Your task to perform on an android device: Open my contact list Image 0: 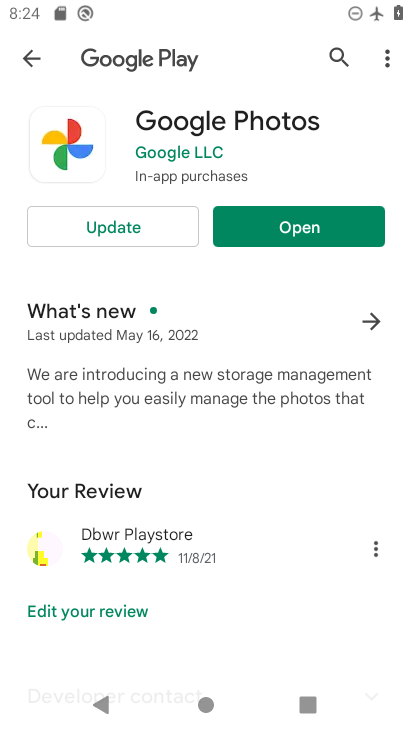
Step 0: press home button
Your task to perform on an android device: Open my contact list Image 1: 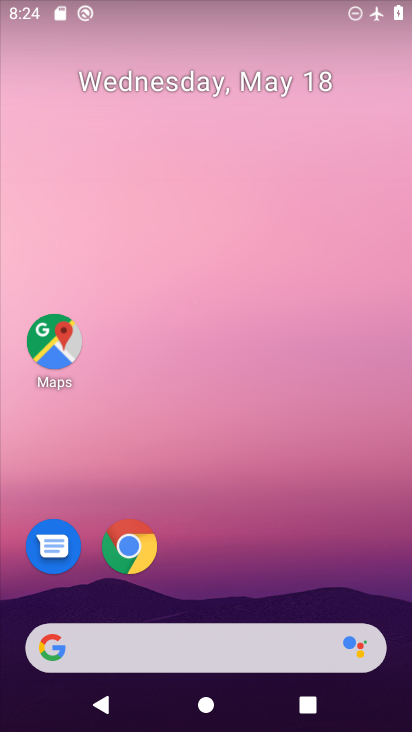
Step 1: drag from (223, 669) to (309, 312)
Your task to perform on an android device: Open my contact list Image 2: 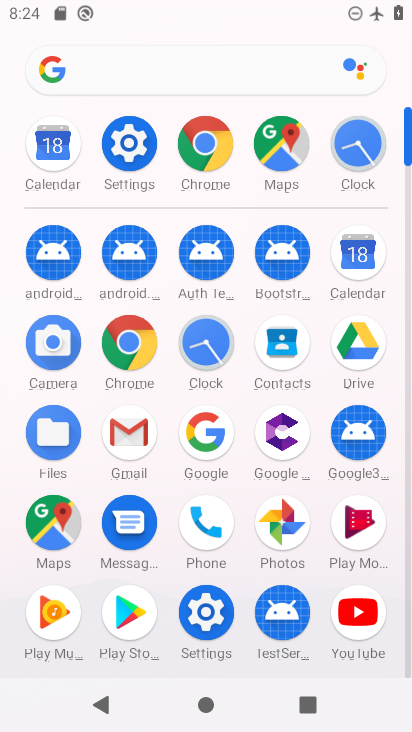
Step 2: click (240, 531)
Your task to perform on an android device: Open my contact list Image 3: 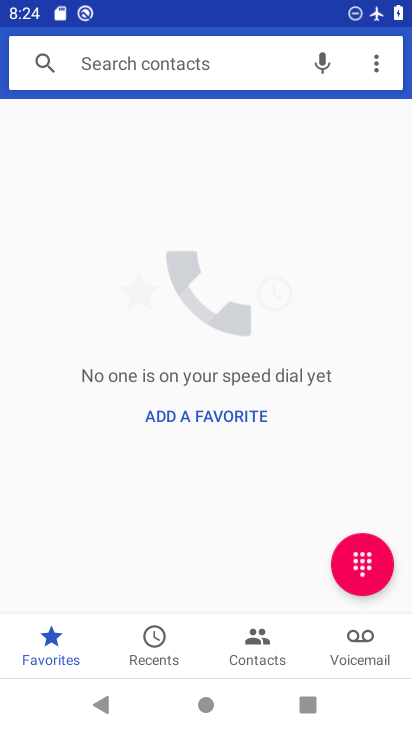
Step 3: click (252, 644)
Your task to perform on an android device: Open my contact list Image 4: 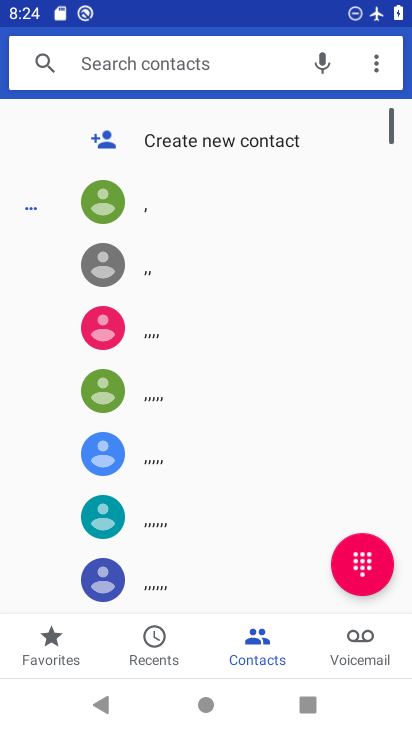
Step 4: task complete